Your task to perform on an android device: Open Yahoo.com Image 0: 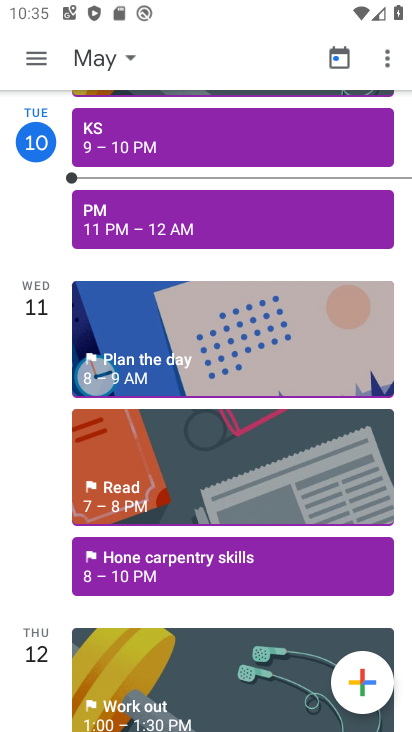
Step 0: press home button
Your task to perform on an android device: Open Yahoo.com Image 1: 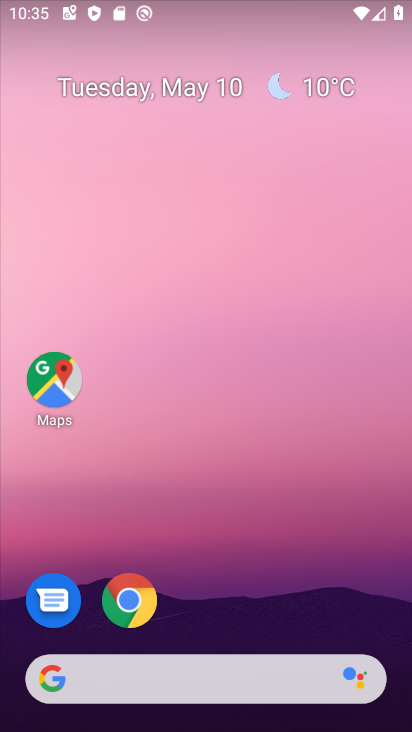
Step 1: click (128, 612)
Your task to perform on an android device: Open Yahoo.com Image 2: 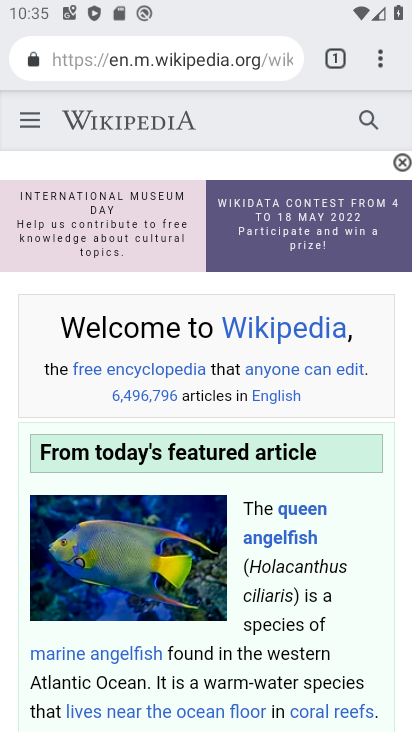
Step 2: click (337, 63)
Your task to perform on an android device: Open Yahoo.com Image 3: 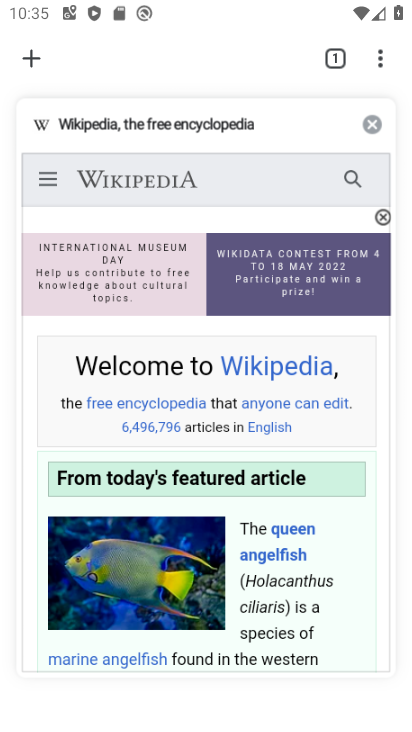
Step 3: click (32, 55)
Your task to perform on an android device: Open Yahoo.com Image 4: 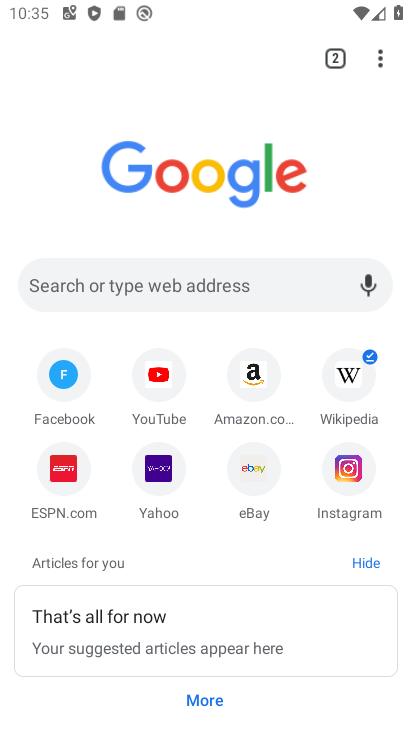
Step 4: click (159, 475)
Your task to perform on an android device: Open Yahoo.com Image 5: 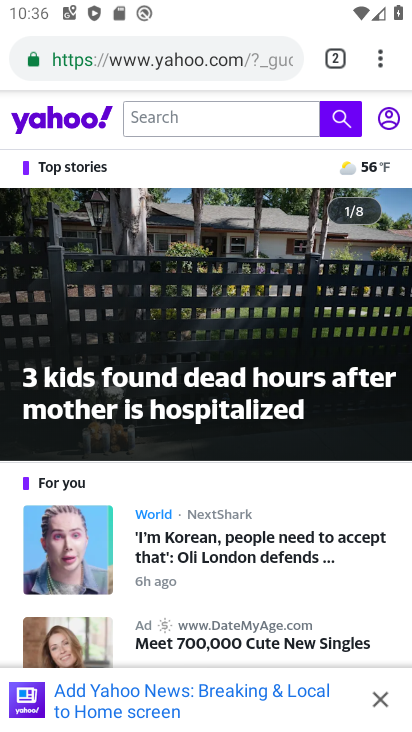
Step 5: task complete